Your task to perform on an android device: Open Google Image 0: 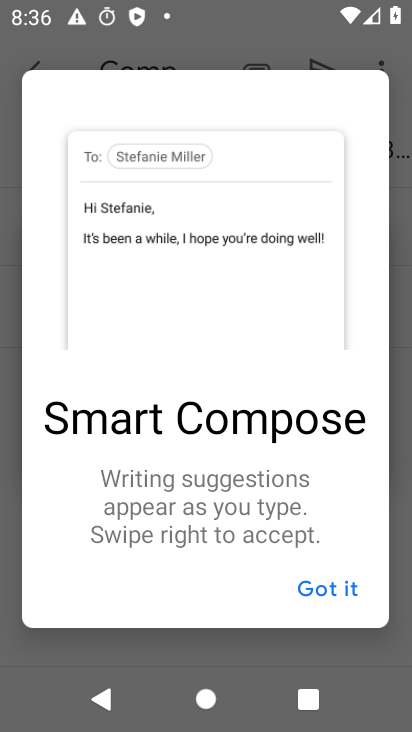
Step 0: press home button
Your task to perform on an android device: Open Google Image 1: 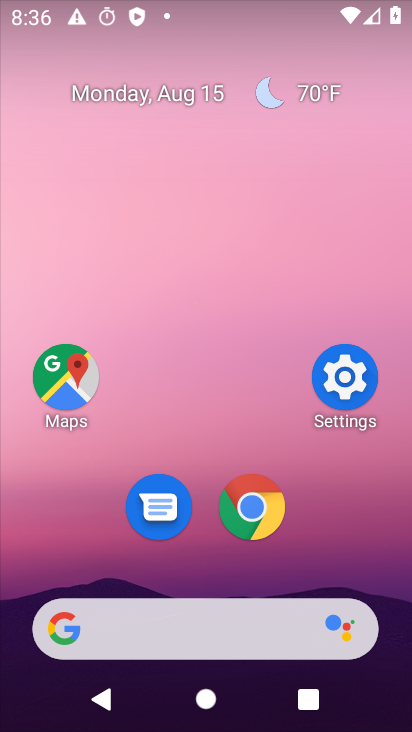
Step 1: drag from (127, 634) to (239, 270)
Your task to perform on an android device: Open Google Image 2: 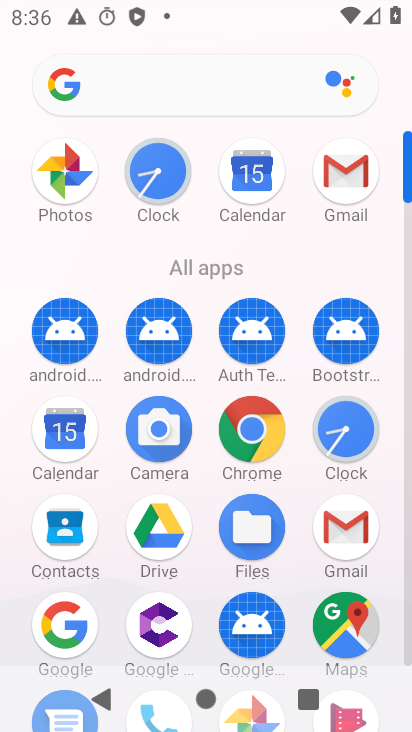
Step 2: click (74, 627)
Your task to perform on an android device: Open Google Image 3: 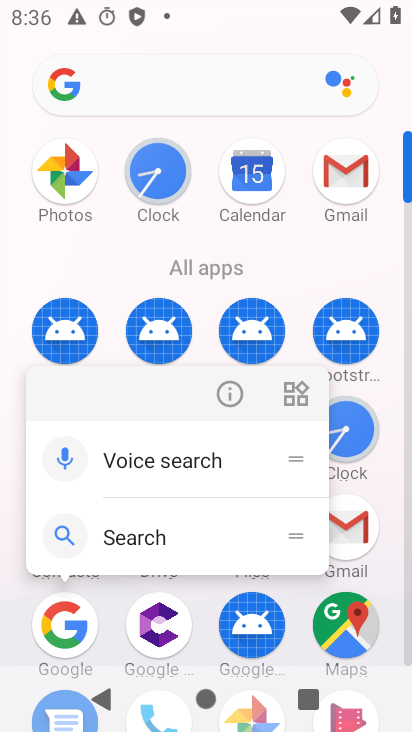
Step 3: click (73, 626)
Your task to perform on an android device: Open Google Image 4: 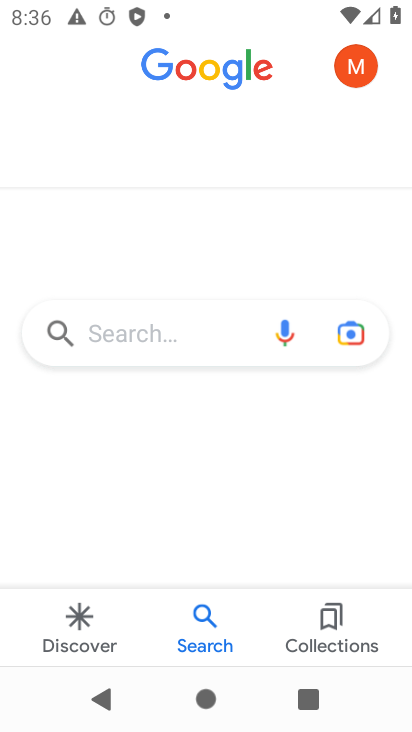
Step 4: task complete